Your task to perform on an android device: turn notification dots off Image 0: 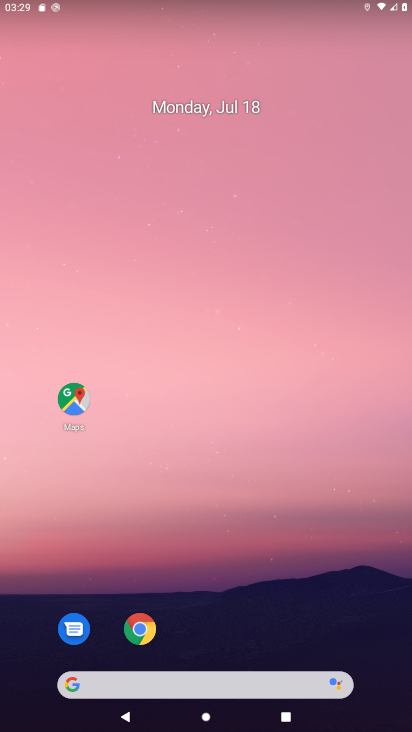
Step 0: drag from (358, 597) to (378, 207)
Your task to perform on an android device: turn notification dots off Image 1: 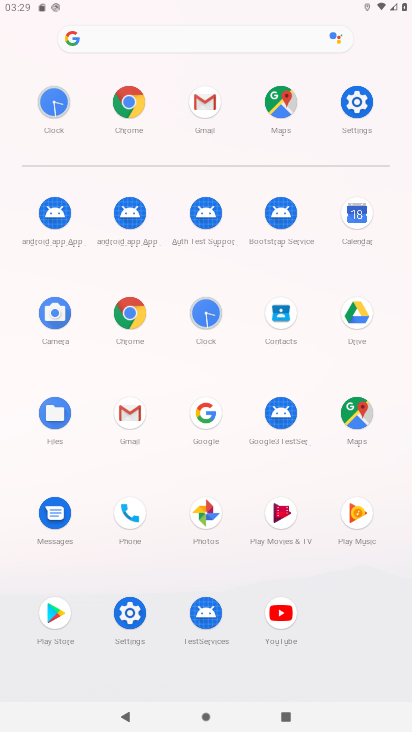
Step 1: click (362, 114)
Your task to perform on an android device: turn notification dots off Image 2: 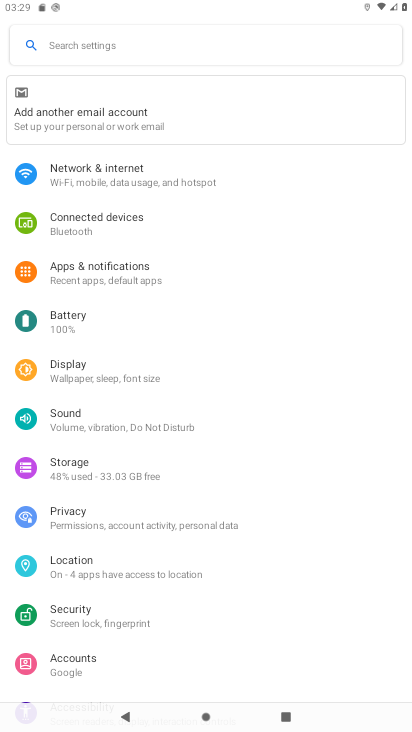
Step 2: drag from (314, 467) to (319, 427)
Your task to perform on an android device: turn notification dots off Image 3: 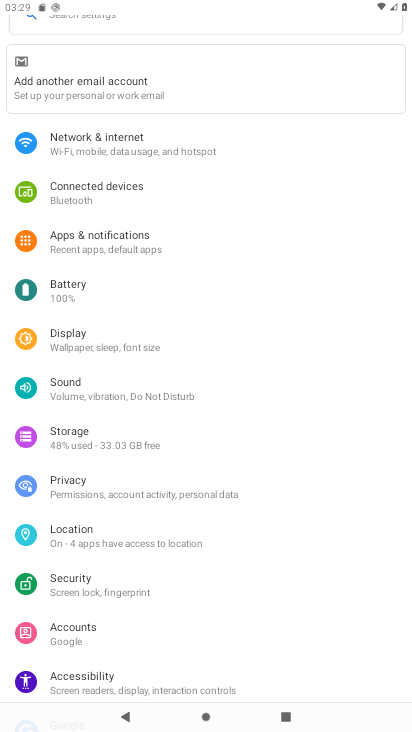
Step 3: drag from (319, 503) to (319, 410)
Your task to perform on an android device: turn notification dots off Image 4: 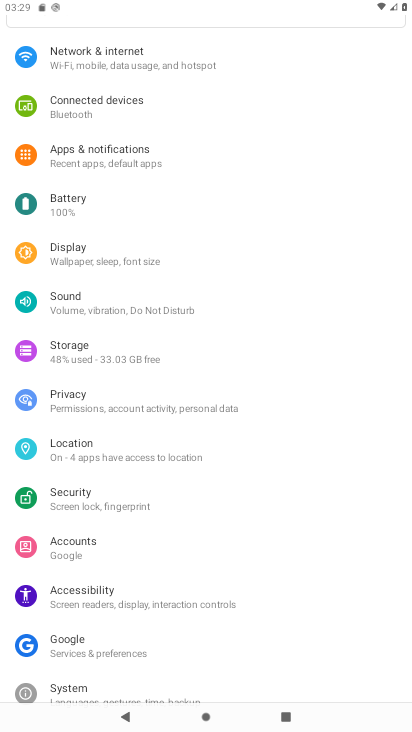
Step 4: drag from (313, 488) to (325, 402)
Your task to perform on an android device: turn notification dots off Image 5: 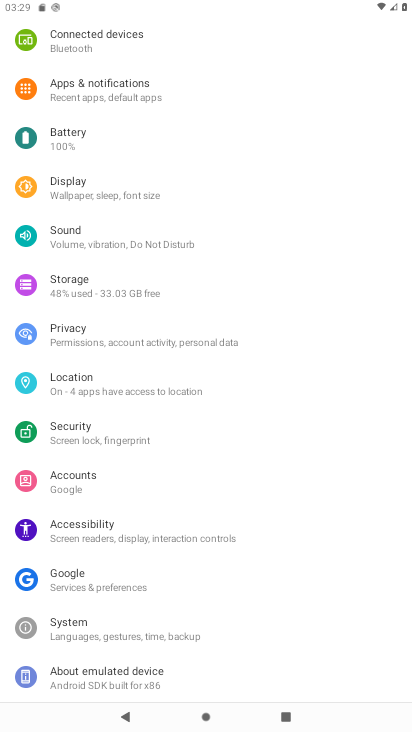
Step 5: drag from (311, 275) to (311, 358)
Your task to perform on an android device: turn notification dots off Image 6: 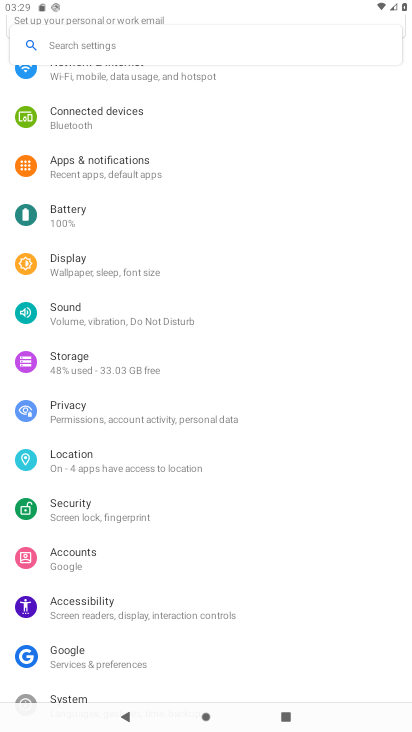
Step 6: drag from (307, 294) to (307, 364)
Your task to perform on an android device: turn notification dots off Image 7: 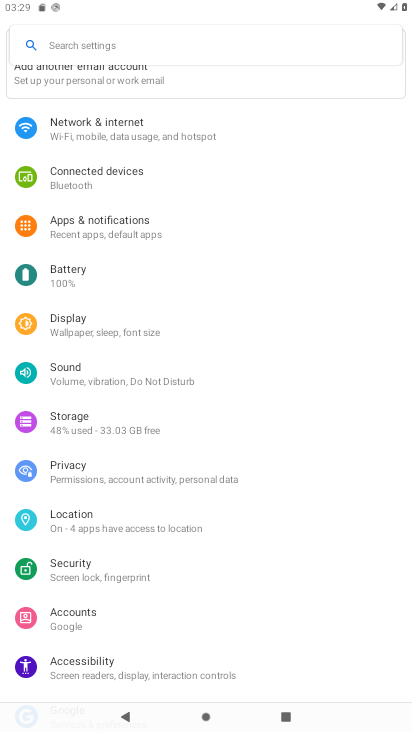
Step 7: drag from (299, 246) to (305, 386)
Your task to perform on an android device: turn notification dots off Image 8: 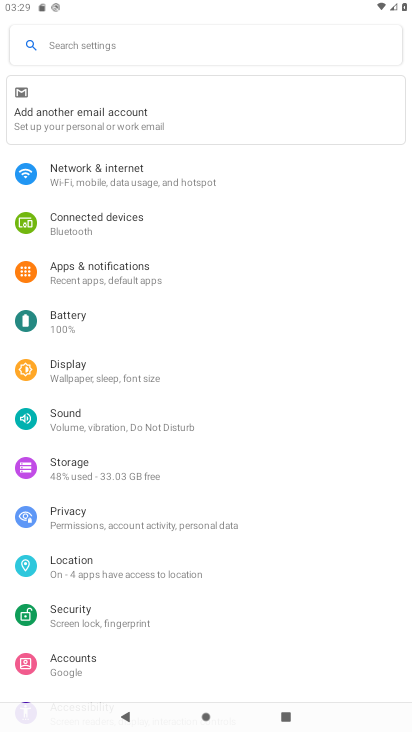
Step 8: click (163, 277)
Your task to perform on an android device: turn notification dots off Image 9: 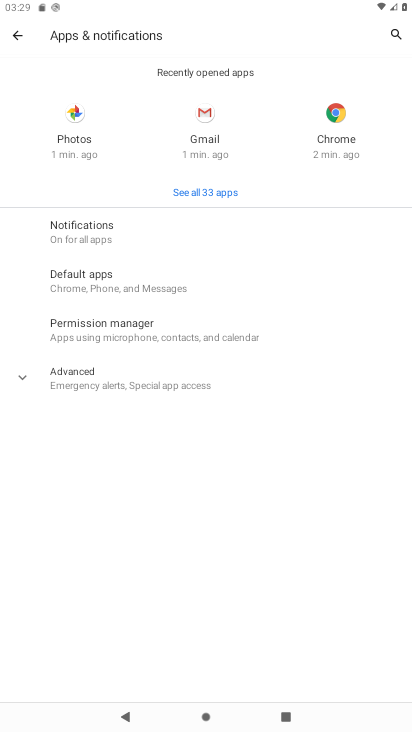
Step 9: click (124, 240)
Your task to perform on an android device: turn notification dots off Image 10: 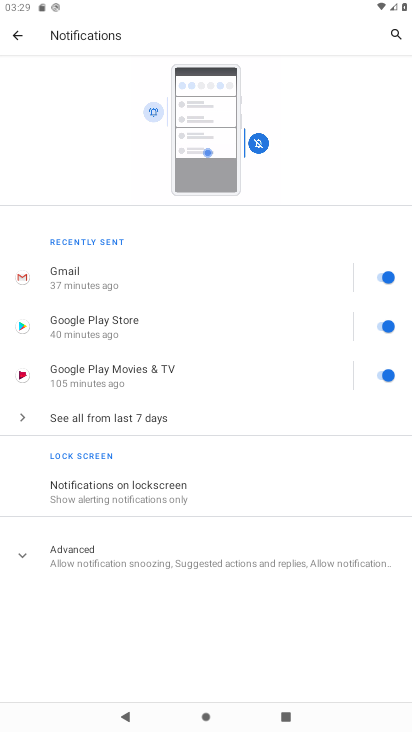
Step 10: click (210, 541)
Your task to perform on an android device: turn notification dots off Image 11: 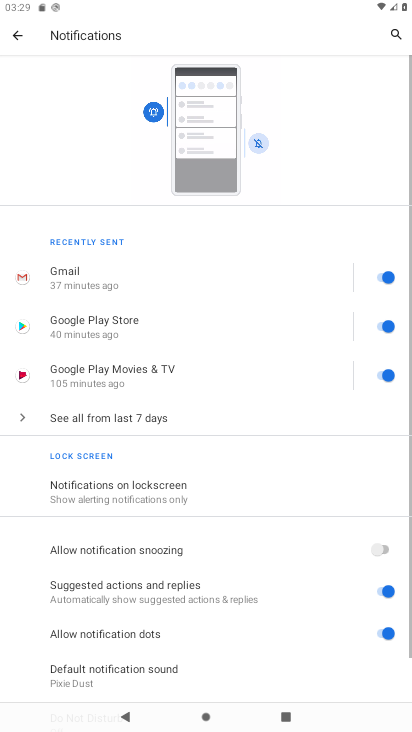
Step 11: drag from (248, 520) to (255, 411)
Your task to perform on an android device: turn notification dots off Image 12: 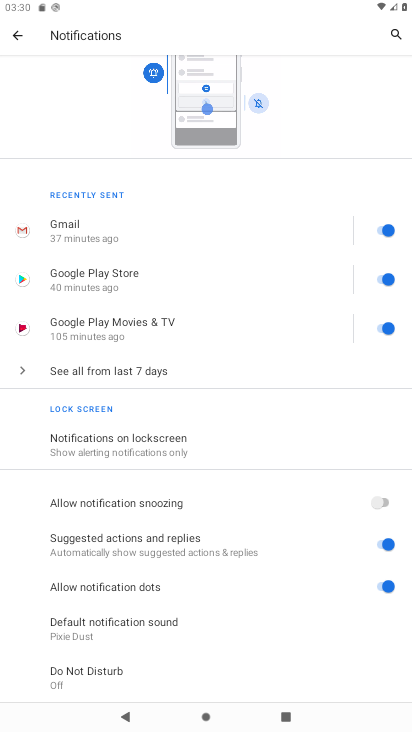
Step 12: click (380, 585)
Your task to perform on an android device: turn notification dots off Image 13: 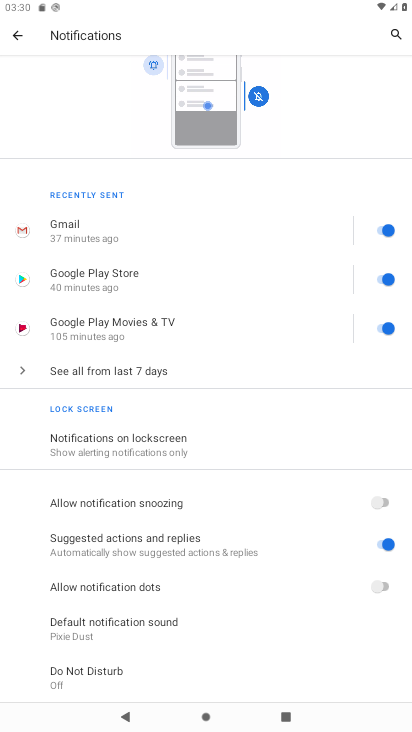
Step 13: task complete